Your task to perform on an android device: change the clock display to analog Image 0: 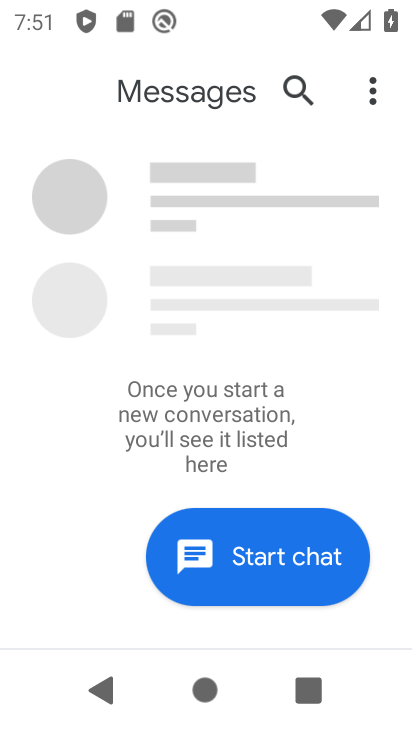
Step 0: press home button
Your task to perform on an android device: change the clock display to analog Image 1: 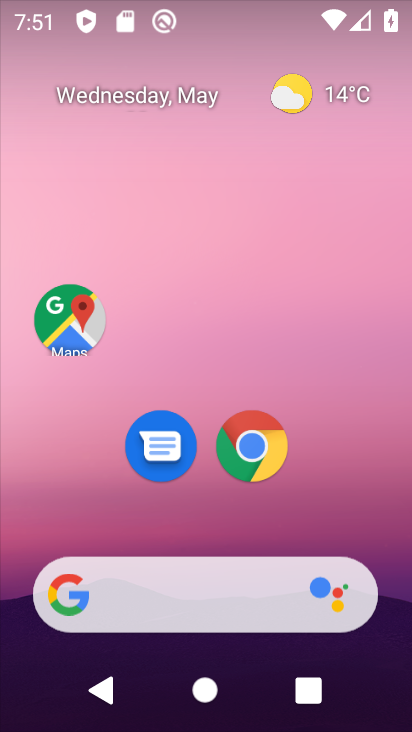
Step 1: drag from (243, 508) to (253, 99)
Your task to perform on an android device: change the clock display to analog Image 2: 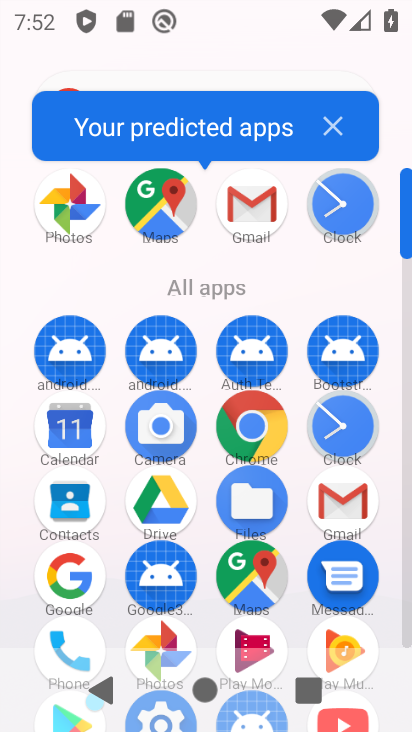
Step 2: click (341, 218)
Your task to perform on an android device: change the clock display to analog Image 3: 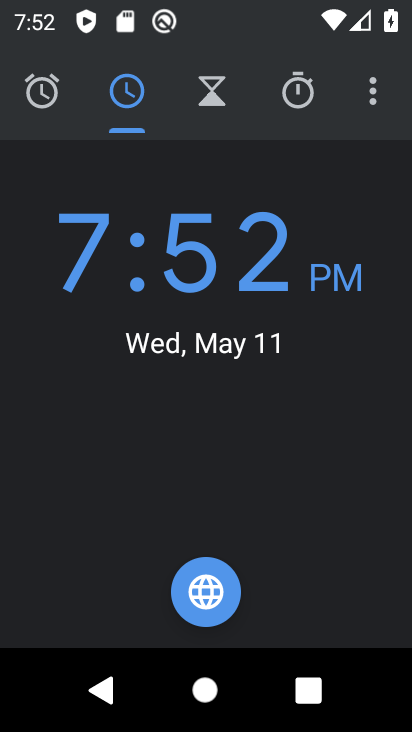
Step 3: click (367, 103)
Your task to perform on an android device: change the clock display to analog Image 4: 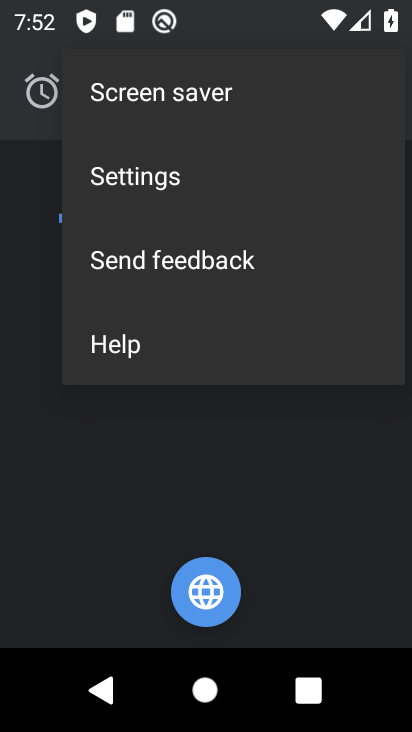
Step 4: click (196, 183)
Your task to perform on an android device: change the clock display to analog Image 5: 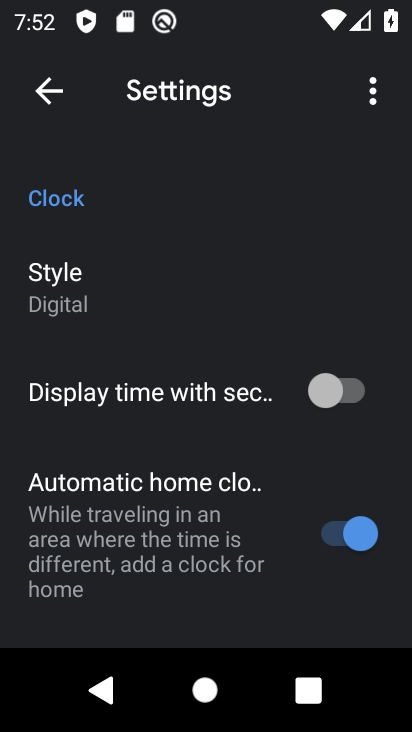
Step 5: click (177, 309)
Your task to perform on an android device: change the clock display to analog Image 6: 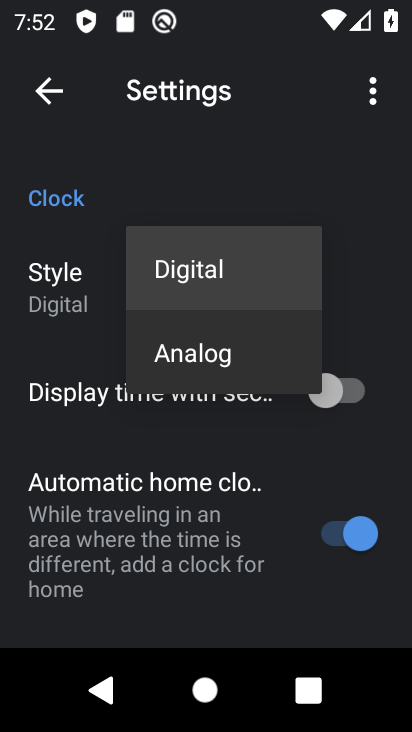
Step 6: click (184, 356)
Your task to perform on an android device: change the clock display to analog Image 7: 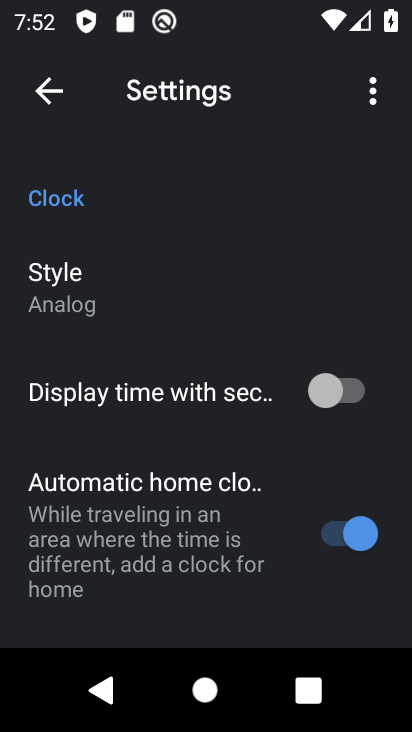
Step 7: task complete